Your task to perform on an android device: Go to wifi settings Image 0: 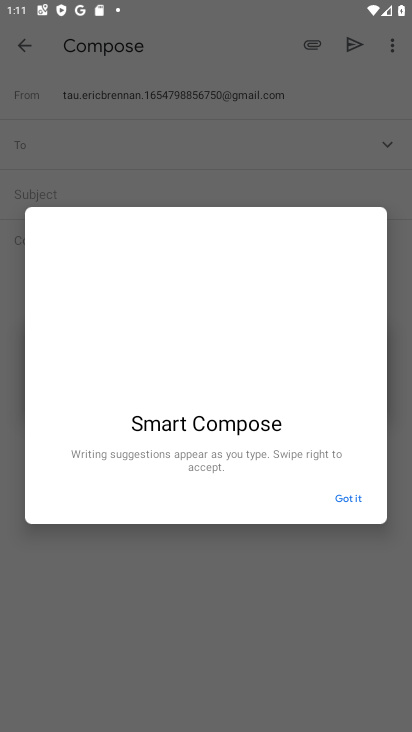
Step 0: drag from (274, 696) to (312, 449)
Your task to perform on an android device: Go to wifi settings Image 1: 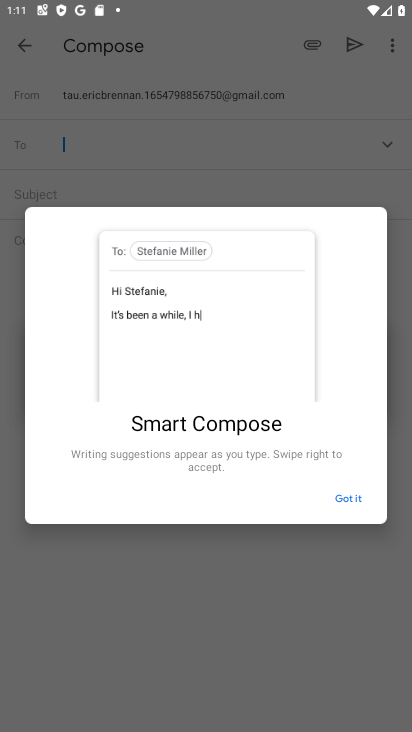
Step 1: press back button
Your task to perform on an android device: Go to wifi settings Image 2: 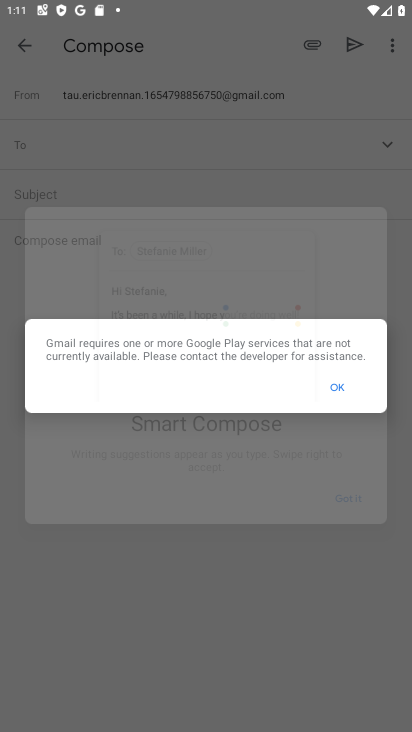
Step 2: press home button
Your task to perform on an android device: Go to wifi settings Image 3: 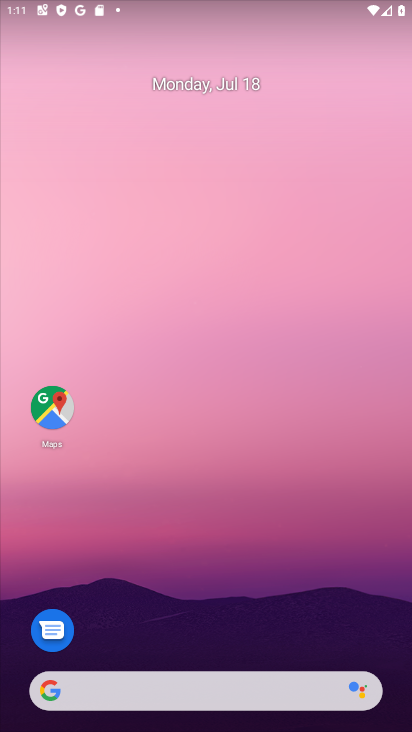
Step 3: click (201, 115)
Your task to perform on an android device: Go to wifi settings Image 4: 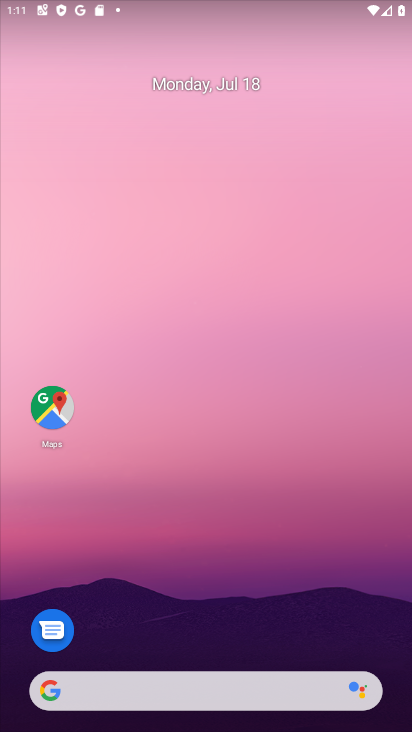
Step 4: drag from (239, 605) to (195, 0)
Your task to perform on an android device: Go to wifi settings Image 5: 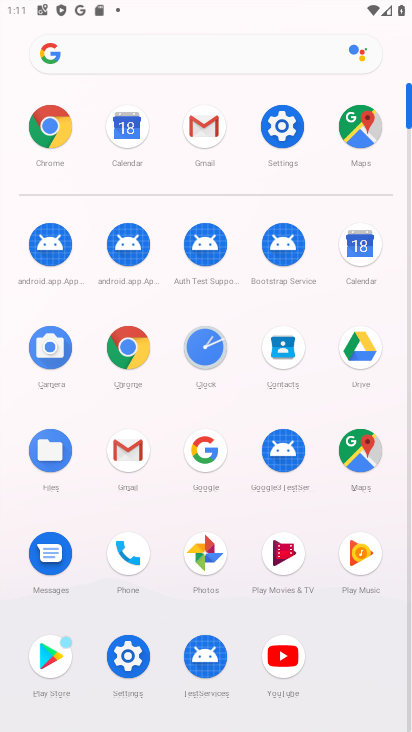
Step 5: click (286, 155)
Your task to perform on an android device: Go to wifi settings Image 6: 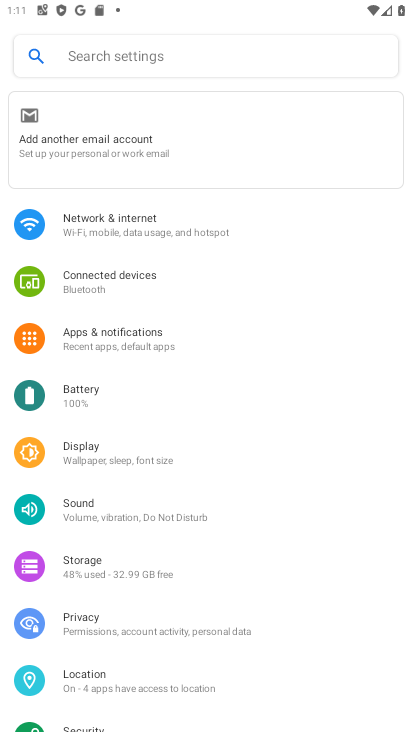
Step 6: click (232, 220)
Your task to perform on an android device: Go to wifi settings Image 7: 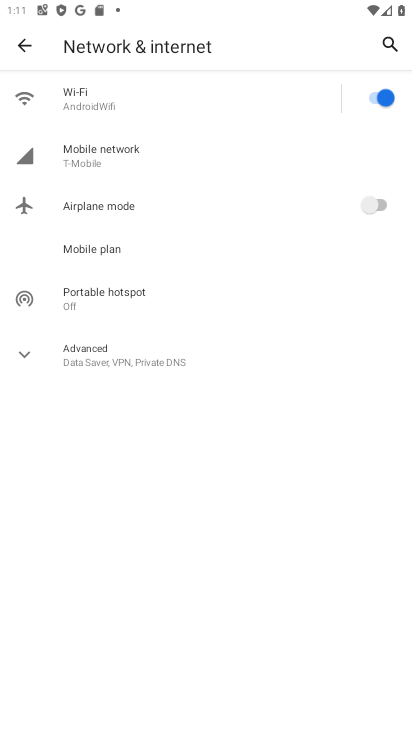
Step 7: click (130, 109)
Your task to perform on an android device: Go to wifi settings Image 8: 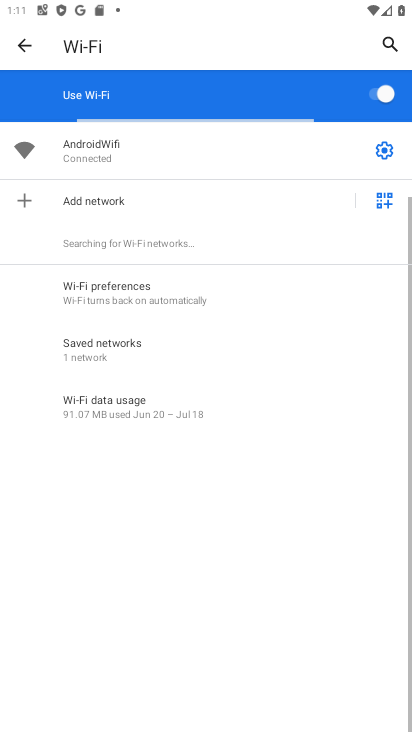
Step 8: task complete